Your task to perform on an android device: visit the assistant section in the google photos Image 0: 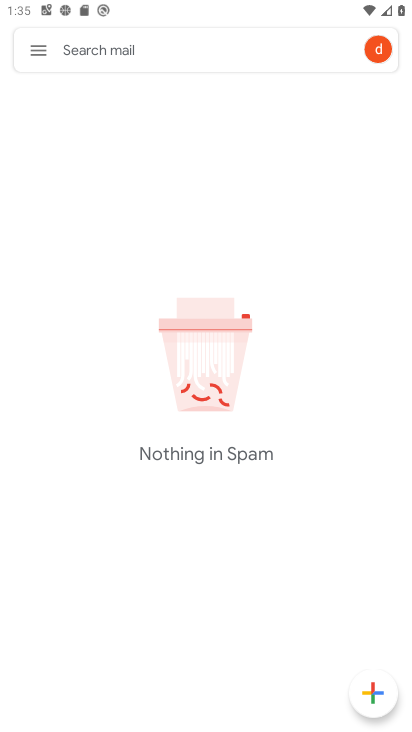
Step 0: press home button
Your task to perform on an android device: visit the assistant section in the google photos Image 1: 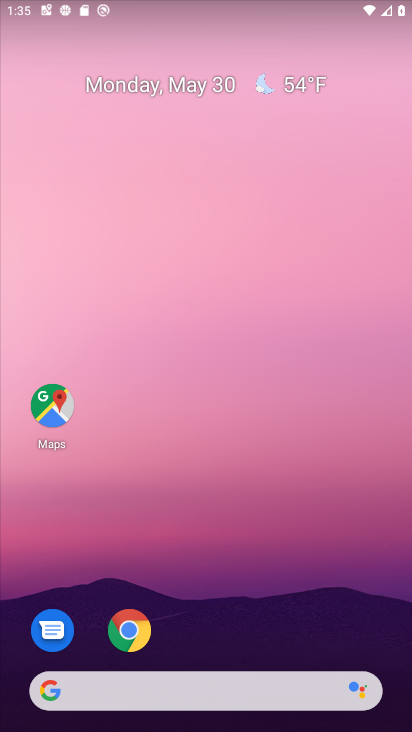
Step 1: drag from (172, 688) to (325, 149)
Your task to perform on an android device: visit the assistant section in the google photos Image 2: 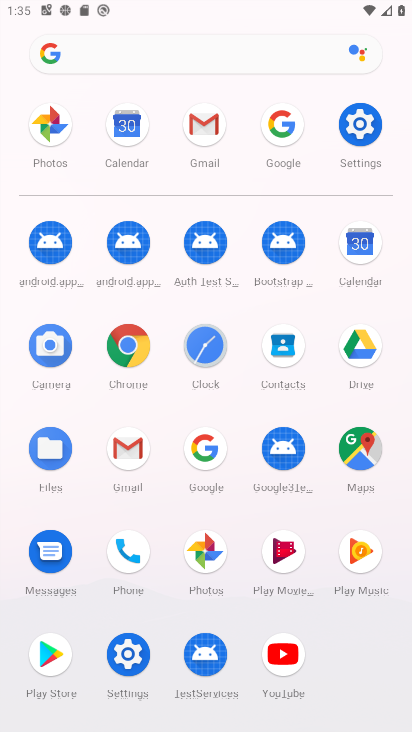
Step 2: click (56, 139)
Your task to perform on an android device: visit the assistant section in the google photos Image 3: 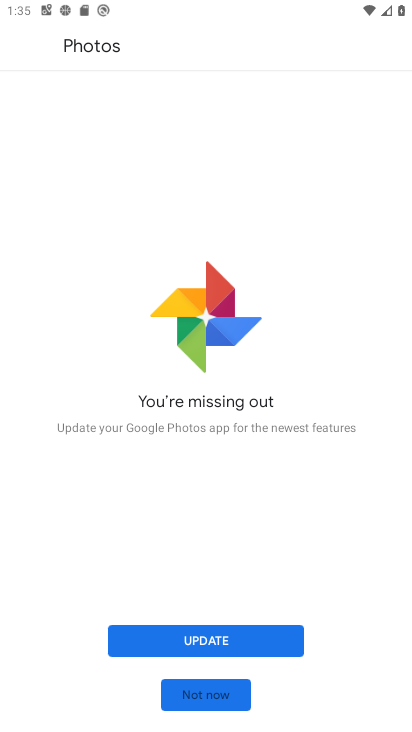
Step 3: click (222, 650)
Your task to perform on an android device: visit the assistant section in the google photos Image 4: 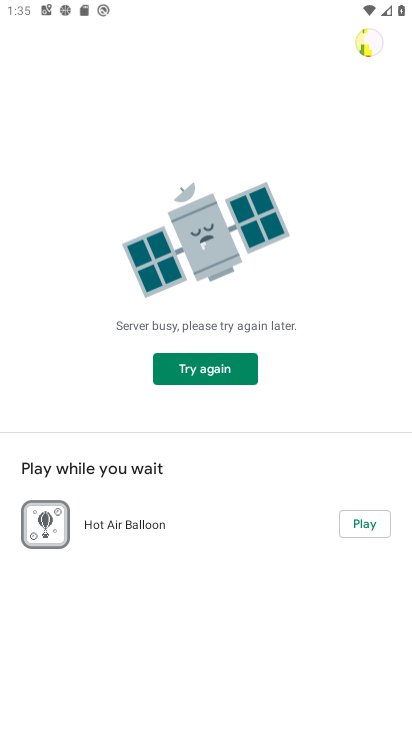
Step 4: click (212, 368)
Your task to perform on an android device: visit the assistant section in the google photos Image 5: 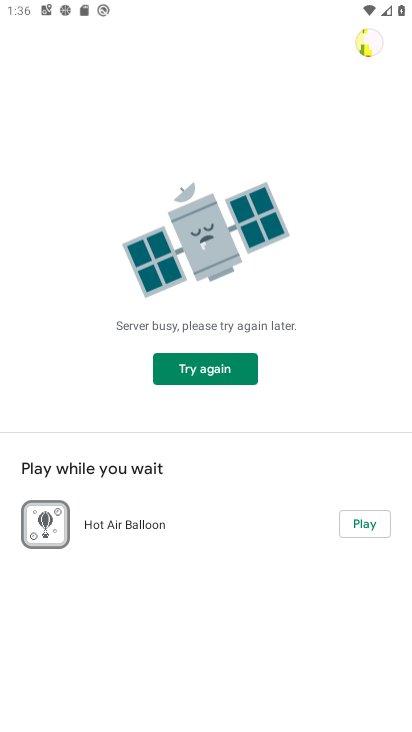
Step 5: press back button
Your task to perform on an android device: visit the assistant section in the google photos Image 6: 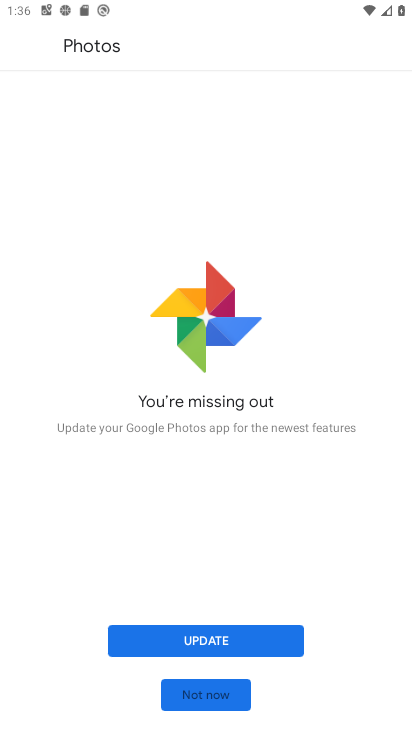
Step 6: click (203, 689)
Your task to perform on an android device: visit the assistant section in the google photos Image 7: 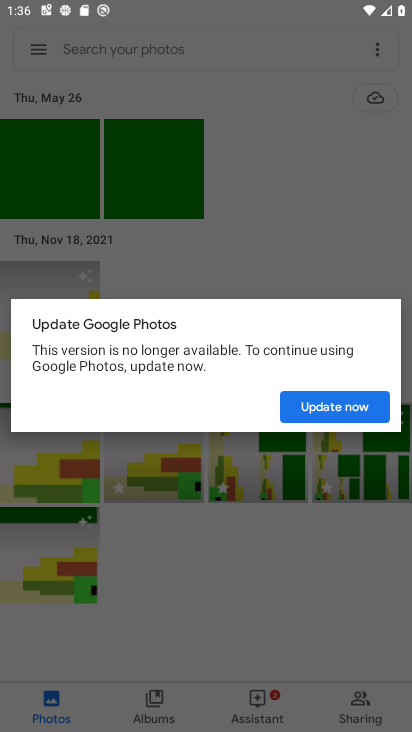
Step 7: click (340, 408)
Your task to perform on an android device: visit the assistant section in the google photos Image 8: 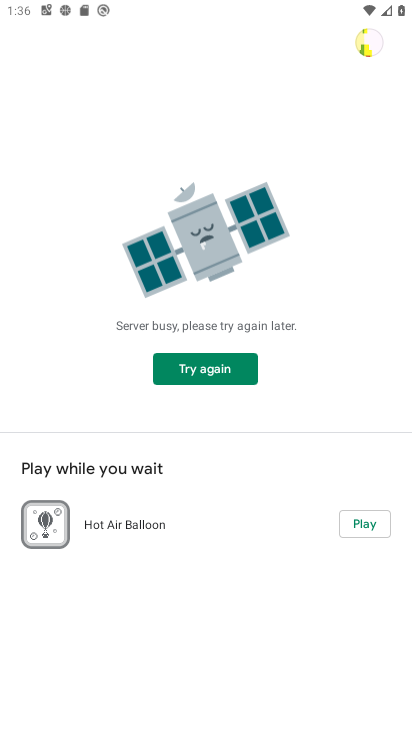
Step 8: task complete